Your task to perform on an android device: turn on priority inbox in the gmail app Image 0: 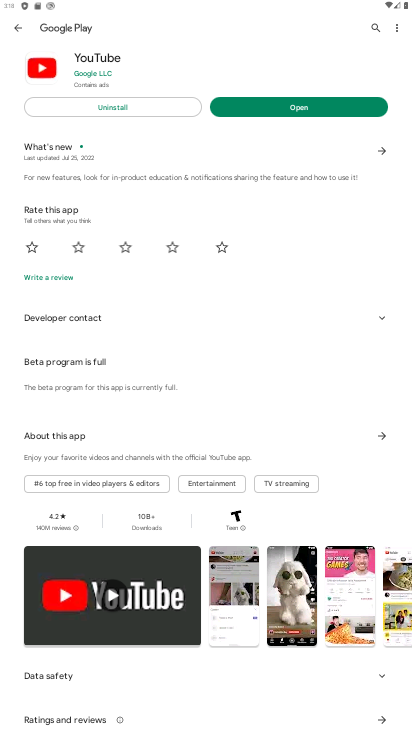
Step 0: press home button
Your task to perform on an android device: turn on priority inbox in the gmail app Image 1: 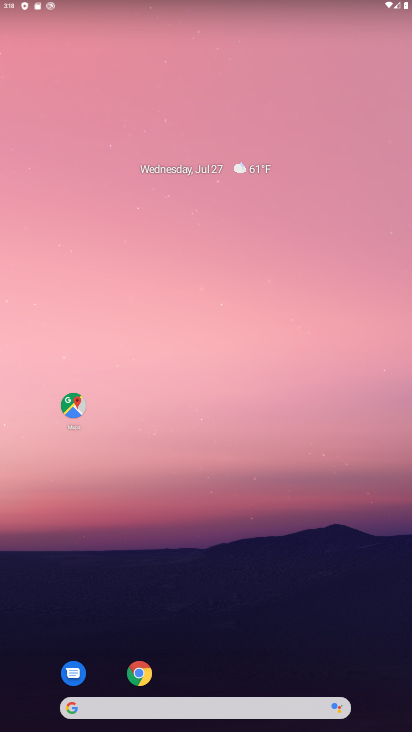
Step 1: drag from (326, 648) to (259, 199)
Your task to perform on an android device: turn on priority inbox in the gmail app Image 2: 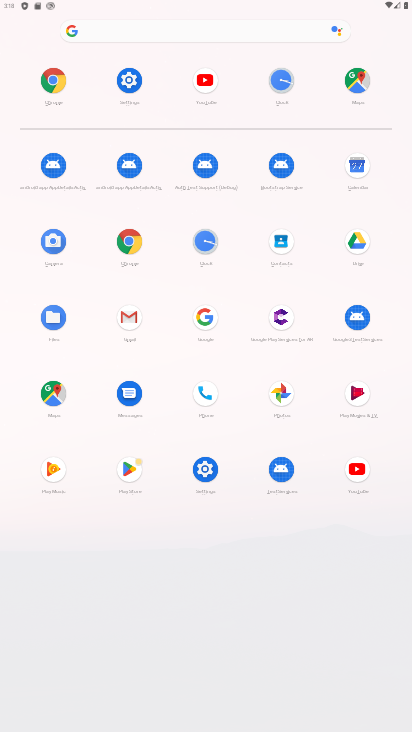
Step 2: click (129, 317)
Your task to perform on an android device: turn on priority inbox in the gmail app Image 3: 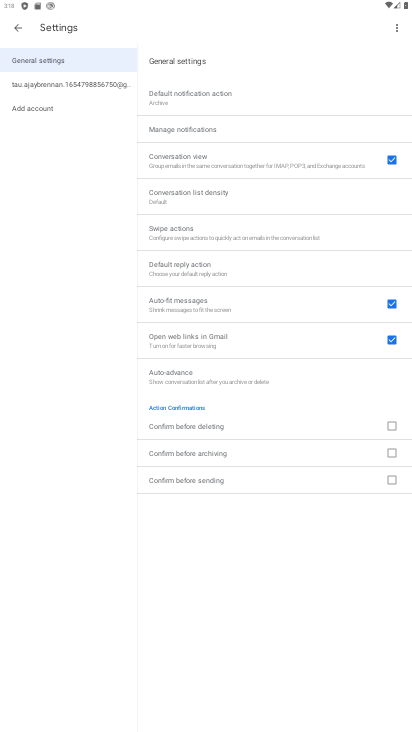
Step 3: click (83, 83)
Your task to perform on an android device: turn on priority inbox in the gmail app Image 4: 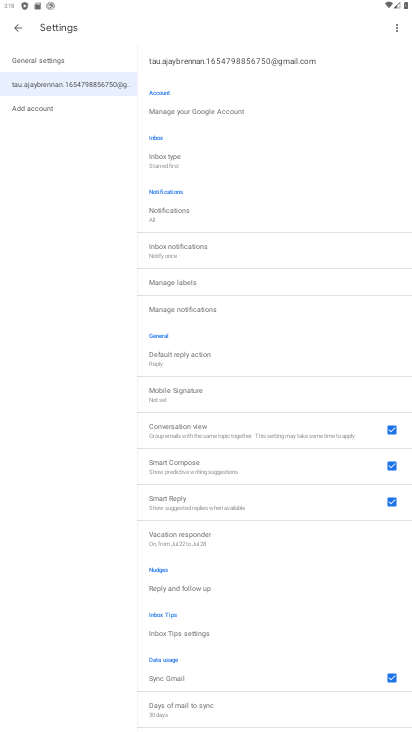
Step 4: click (210, 157)
Your task to perform on an android device: turn on priority inbox in the gmail app Image 5: 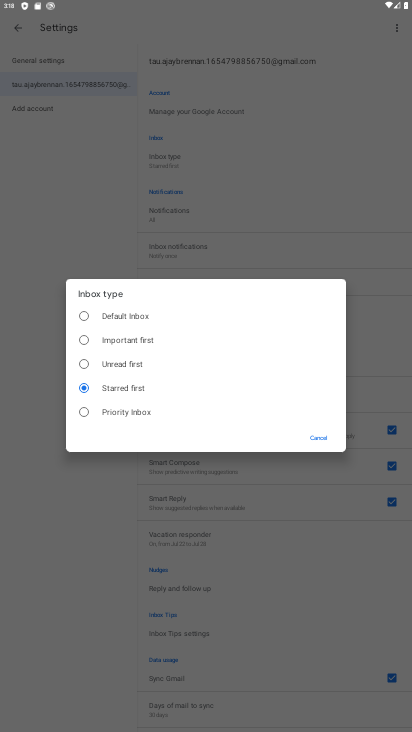
Step 5: click (81, 410)
Your task to perform on an android device: turn on priority inbox in the gmail app Image 6: 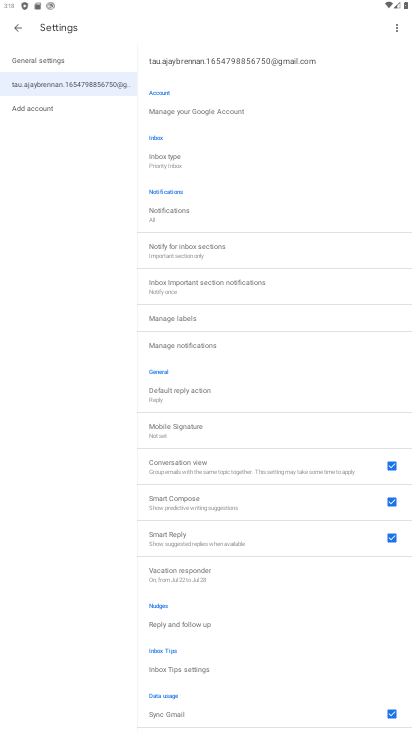
Step 6: task complete